Your task to perform on an android device: set an alarm Image 0: 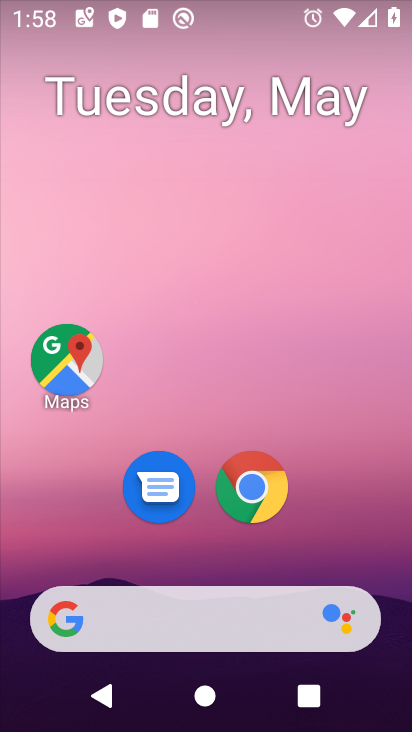
Step 0: drag from (357, 542) to (369, 182)
Your task to perform on an android device: set an alarm Image 1: 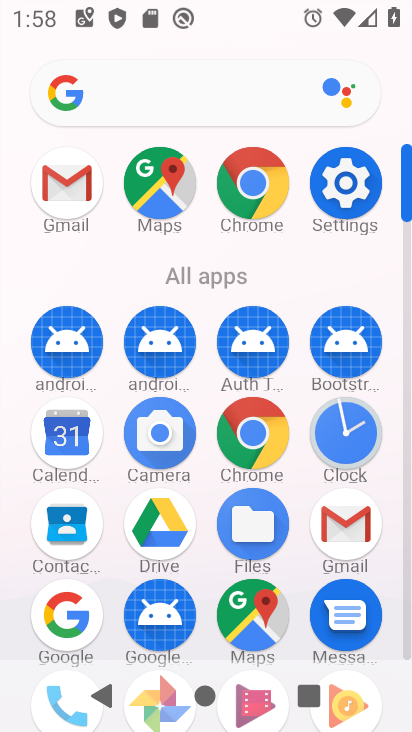
Step 1: click (336, 434)
Your task to perform on an android device: set an alarm Image 2: 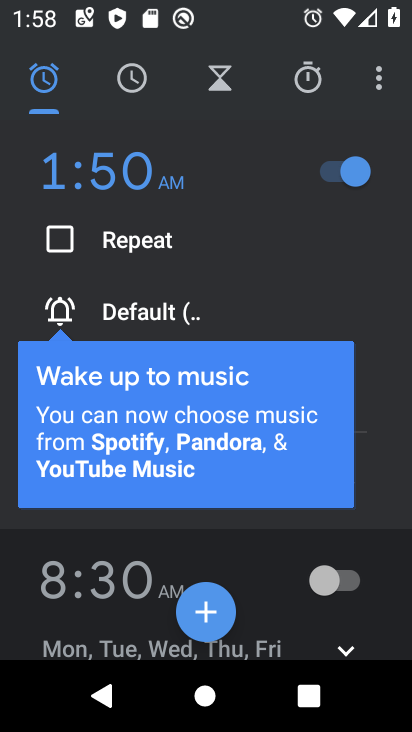
Step 2: click (226, 602)
Your task to perform on an android device: set an alarm Image 3: 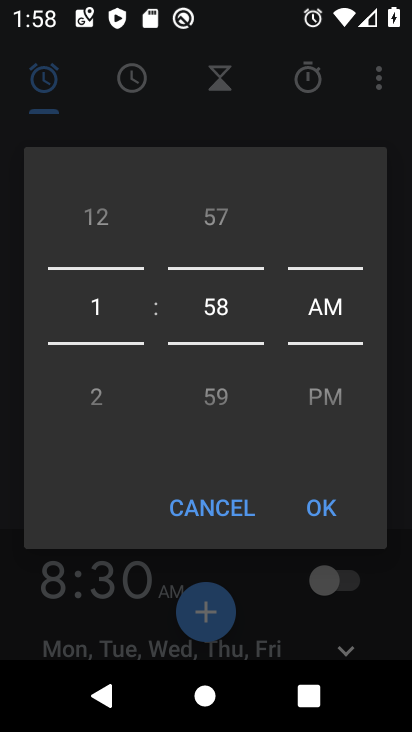
Step 3: click (316, 508)
Your task to perform on an android device: set an alarm Image 4: 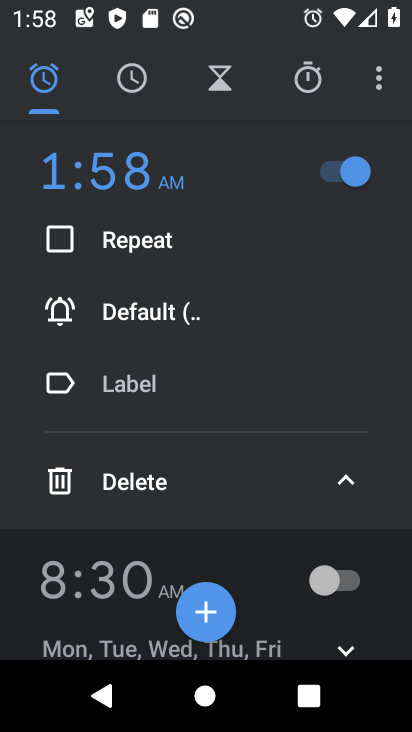
Step 4: task complete